Your task to perform on an android device: Is it going to rain this weekend? Image 0: 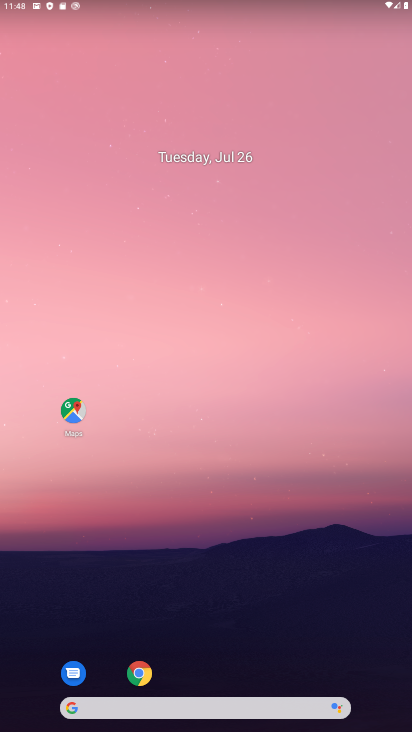
Step 0: drag from (208, 629) to (345, 71)
Your task to perform on an android device: Is it going to rain this weekend? Image 1: 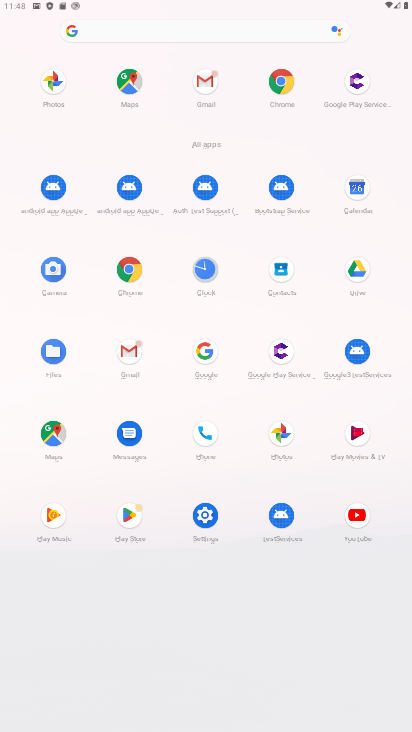
Step 1: click (285, 76)
Your task to perform on an android device: Is it going to rain this weekend? Image 2: 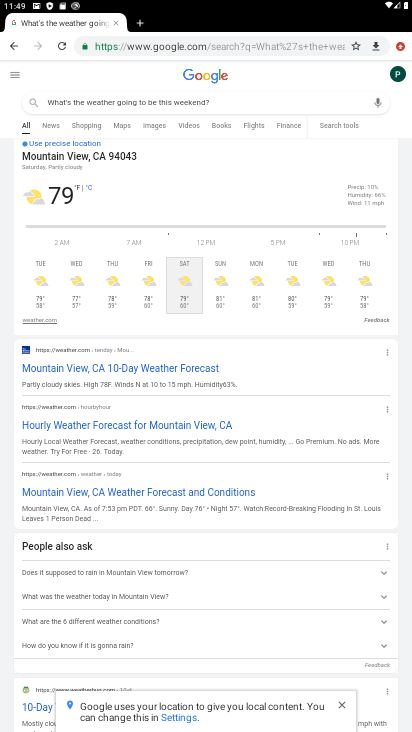
Step 2: click (145, 23)
Your task to perform on an android device: Is it going to rain this weekend? Image 3: 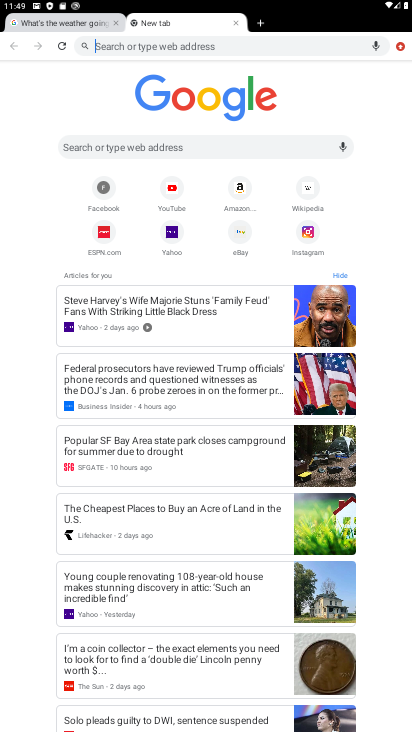
Step 3: click (154, 141)
Your task to perform on an android device: Is it going to rain this weekend? Image 4: 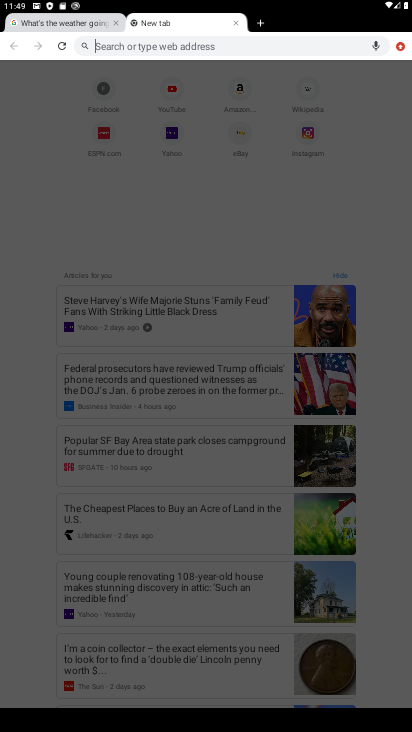
Step 4: type "Is it going to rain this weekend? "
Your task to perform on an android device: Is it going to rain this weekend? Image 5: 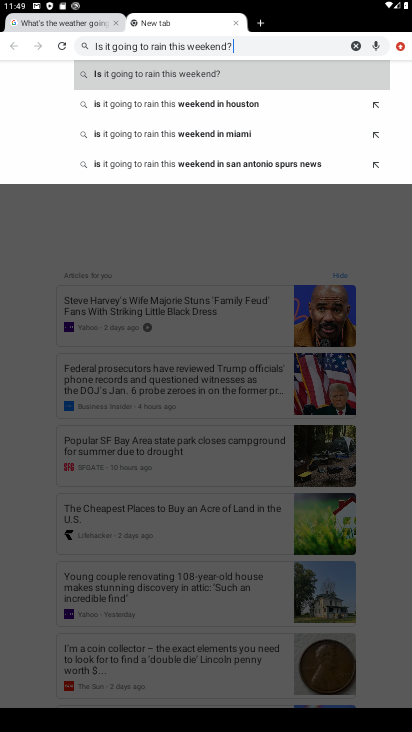
Step 5: click (193, 76)
Your task to perform on an android device: Is it going to rain this weekend? Image 6: 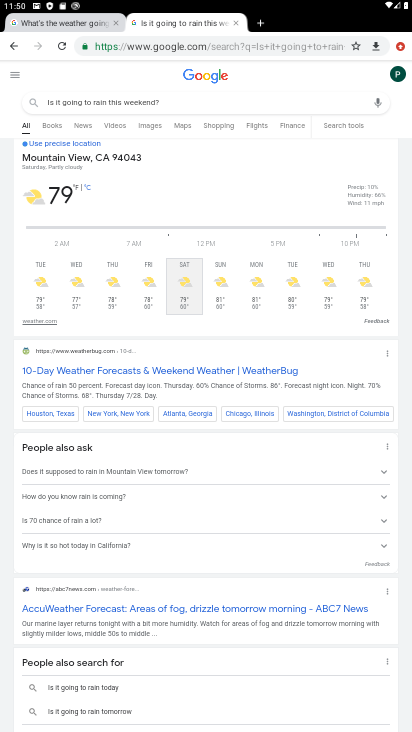
Step 6: task complete